Your task to perform on an android device: turn on the 24-hour format for clock Image 0: 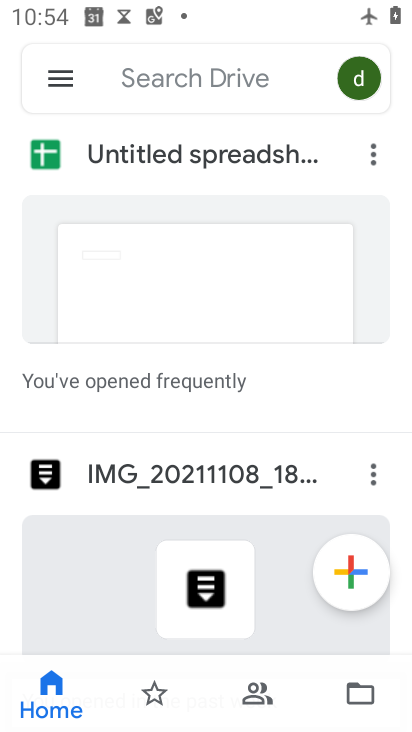
Step 0: press home button
Your task to perform on an android device: turn on the 24-hour format for clock Image 1: 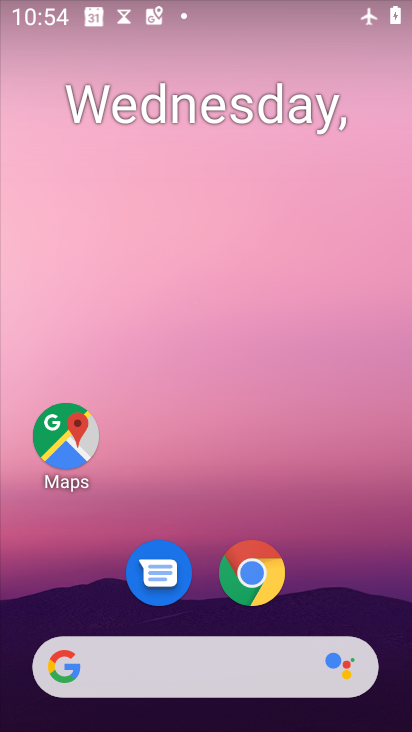
Step 1: drag from (338, 585) to (297, 257)
Your task to perform on an android device: turn on the 24-hour format for clock Image 2: 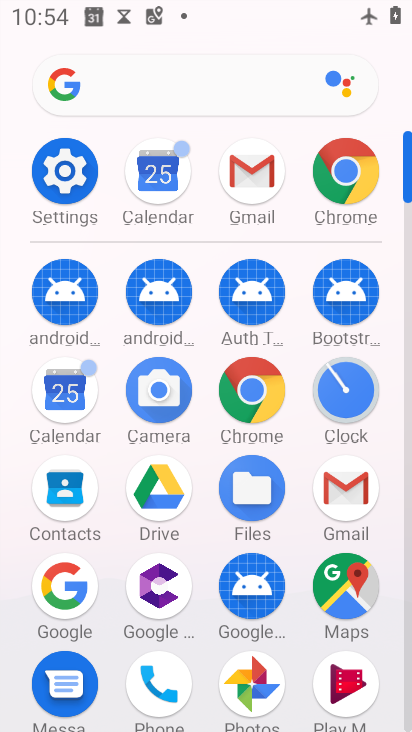
Step 2: click (329, 394)
Your task to perform on an android device: turn on the 24-hour format for clock Image 3: 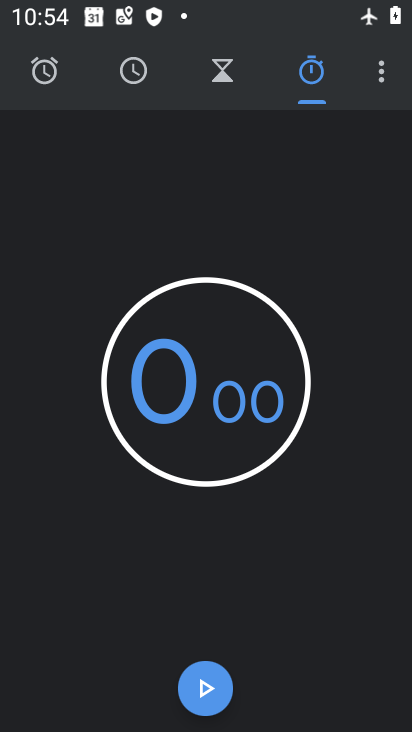
Step 3: click (371, 67)
Your task to perform on an android device: turn on the 24-hour format for clock Image 4: 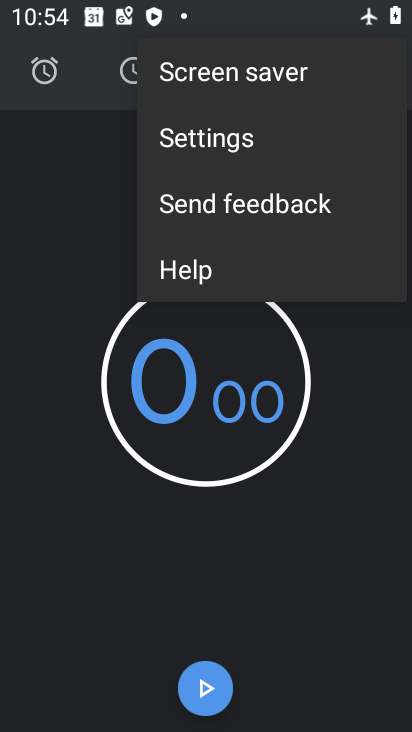
Step 4: click (222, 136)
Your task to perform on an android device: turn on the 24-hour format for clock Image 5: 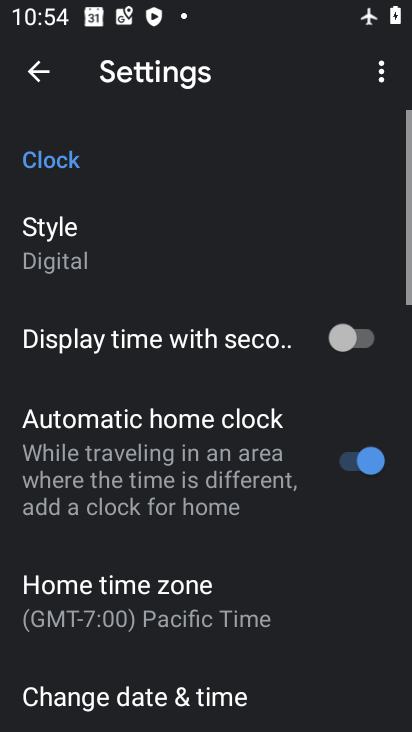
Step 5: drag from (233, 597) to (223, 319)
Your task to perform on an android device: turn on the 24-hour format for clock Image 6: 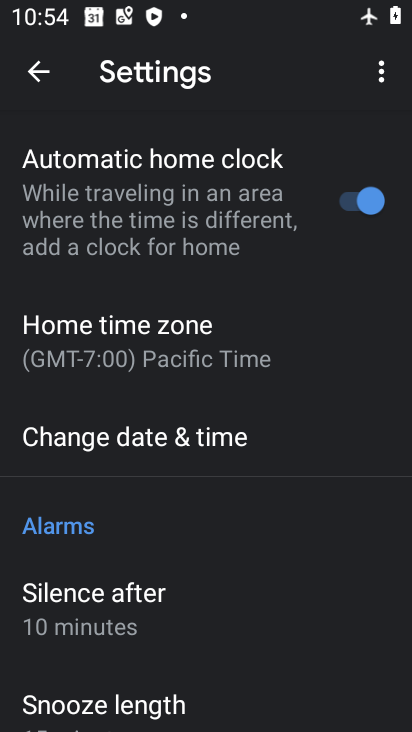
Step 6: click (179, 437)
Your task to perform on an android device: turn on the 24-hour format for clock Image 7: 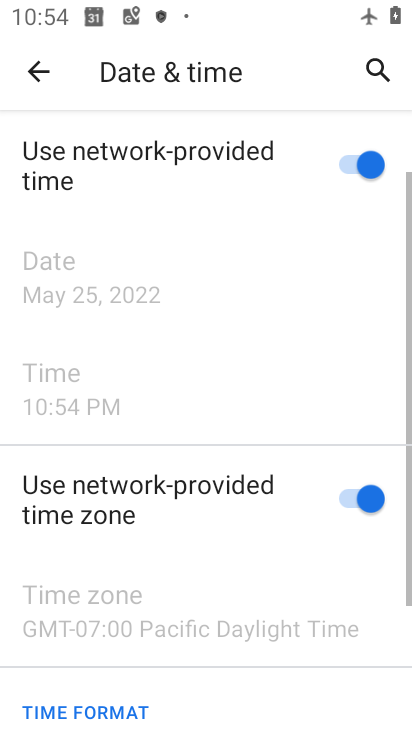
Step 7: drag from (262, 650) to (263, 391)
Your task to perform on an android device: turn on the 24-hour format for clock Image 8: 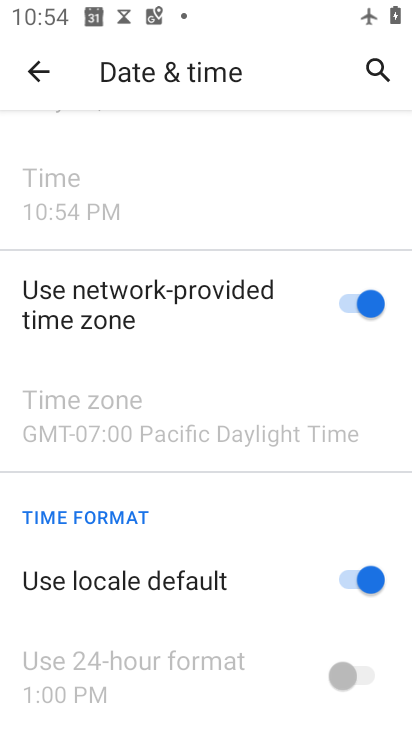
Step 8: drag from (282, 621) to (281, 385)
Your task to perform on an android device: turn on the 24-hour format for clock Image 9: 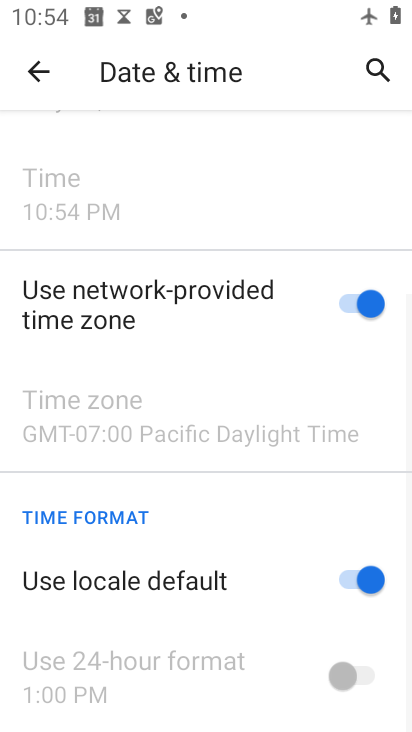
Step 9: click (348, 579)
Your task to perform on an android device: turn on the 24-hour format for clock Image 10: 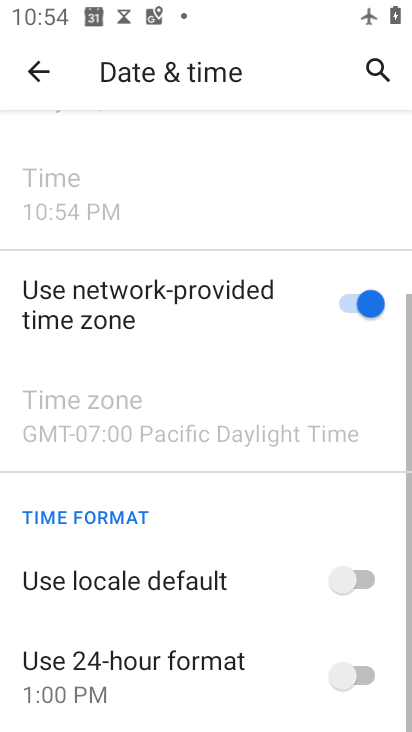
Step 10: click (355, 675)
Your task to perform on an android device: turn on the 24-hour format for clock Image 11: 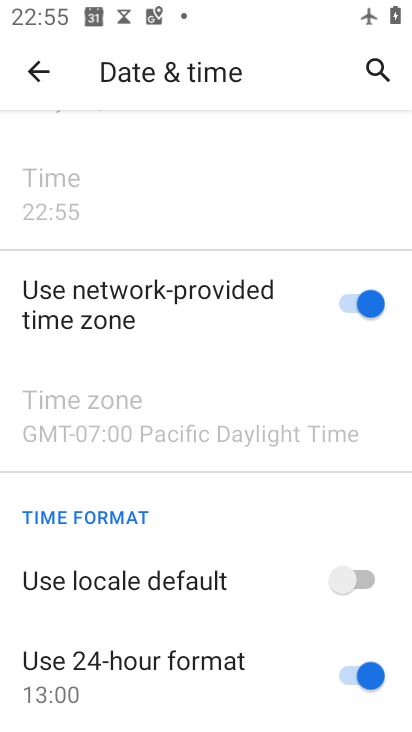
Step 11: task complete